Your task to perform on an android device: Go to Google maps Image 0: 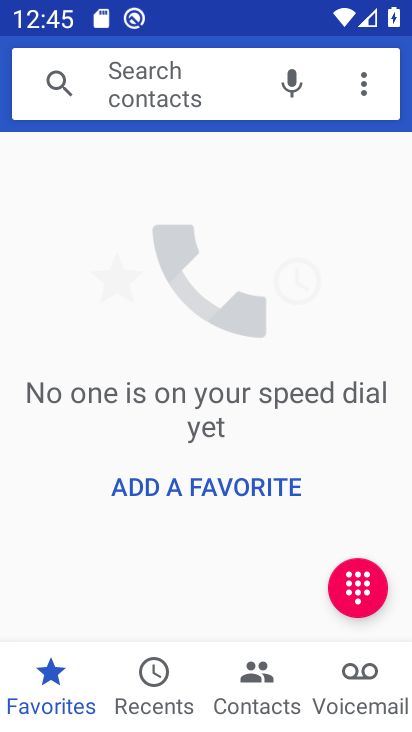
Step 0: press home button
Your task to perform on an android device: Go to Google maps Image 1: 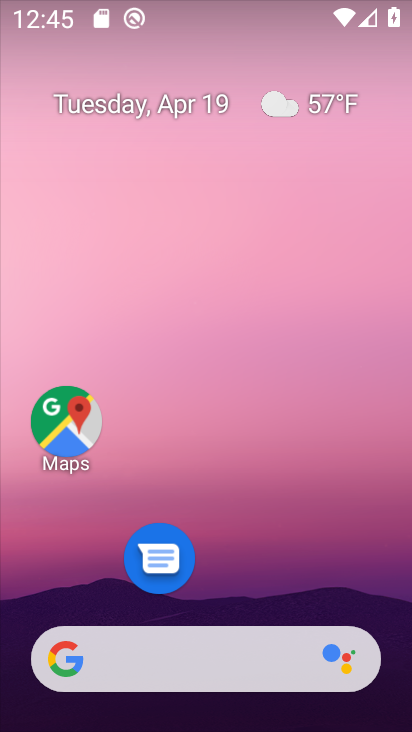
Step 1: drag from (278, 554) to (191, 142)
Your task to perform on an android device: Go to Google maps Image 2: 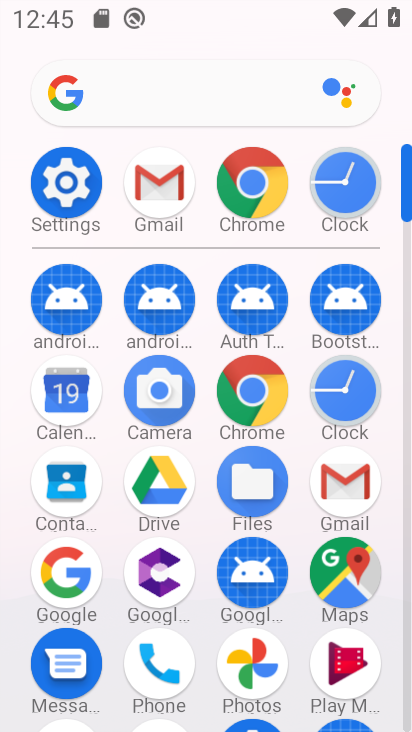
Step 2: click (339, 565)
Your task to perform on an android device: Go to Google maps Image 3: 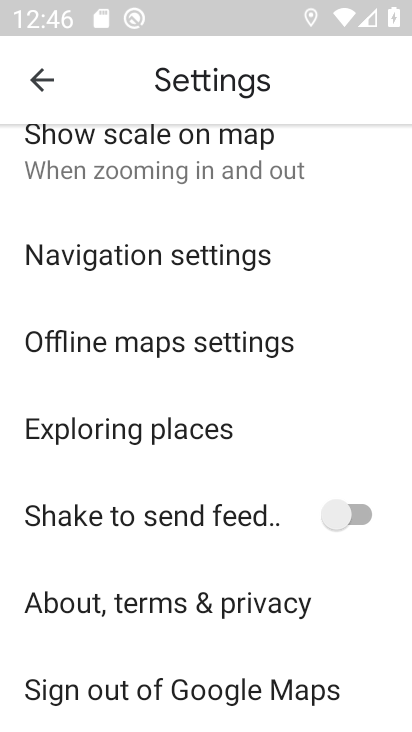
Step 3: task complete